Your task to perform on an android device: Open display settings Image 0: 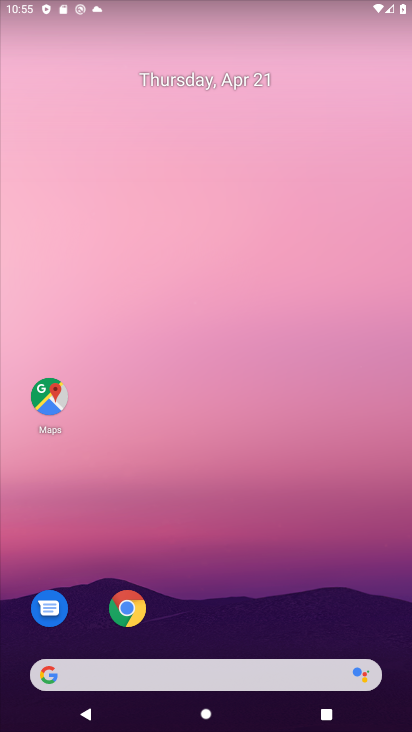
Step 0: drag from (234, 603) to (194, 61)
Your task to perform on an android device: Open display settings Image 1: 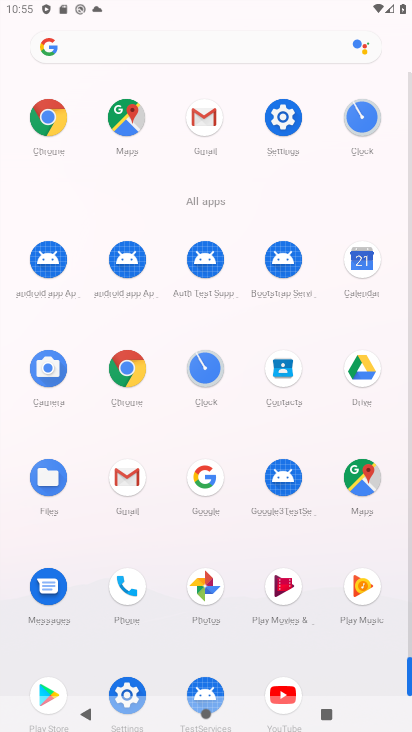
Step 1: click (282, 119)
Your task to perform on an android device: Open display settings Image 2: 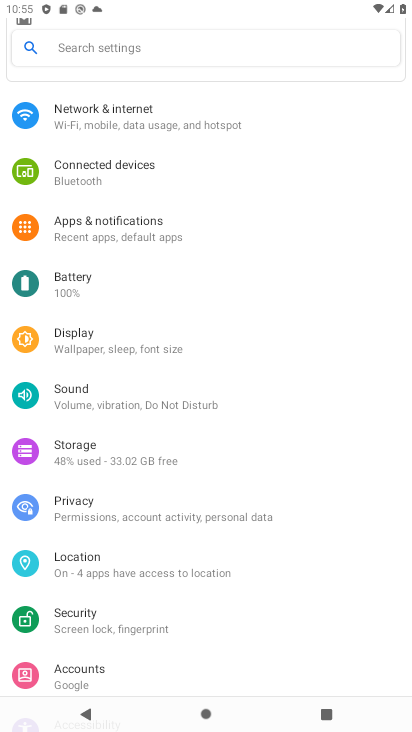
Step 2: click (175, 351)
Your task to perform on an android device: Open display settings Image 3: 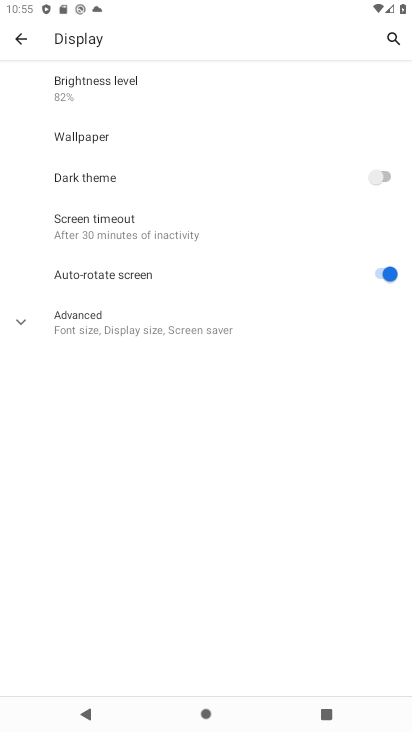
Step 3: task complete